Your task to perform on an android device: add a contact Image 0: 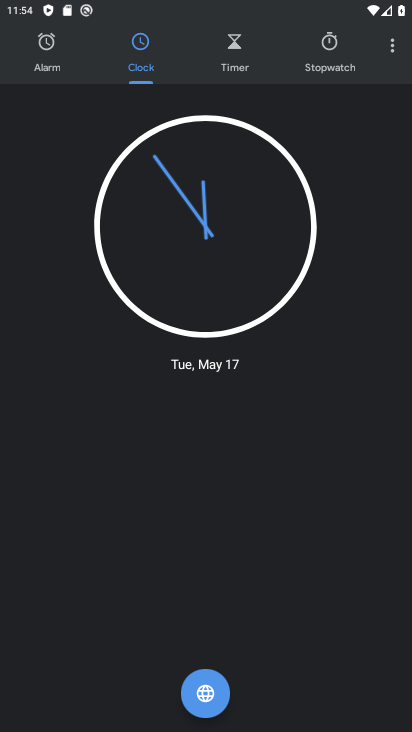
Step 0: press home button
Your task to perform on an android device: add a contact Image 1: 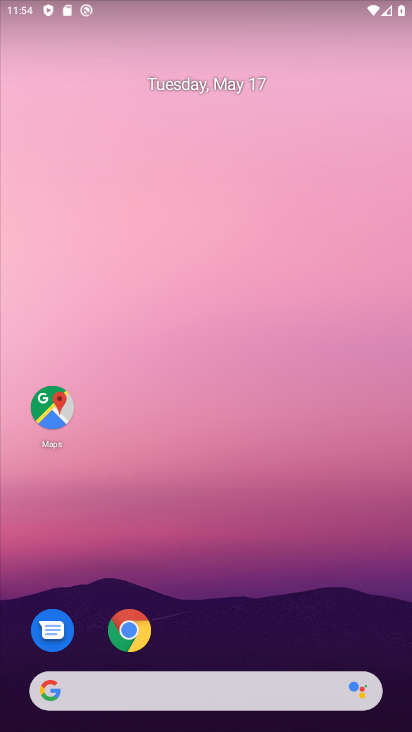
Step 1: drag from (313, 547) to (96, 4)
Your task to perform on an android device: add a contact Image 2: 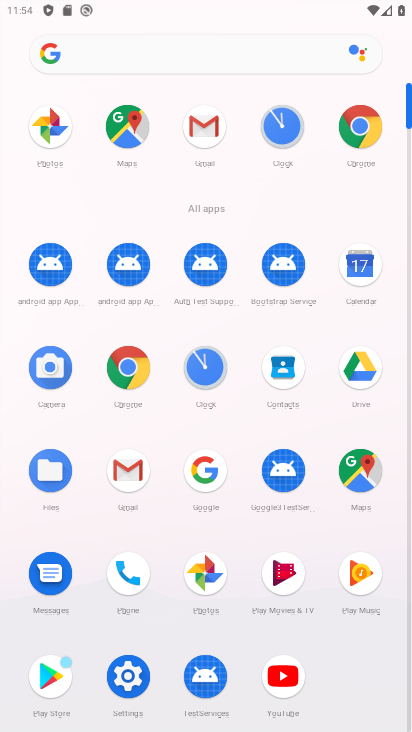
Step 2: click (271, 375)
Your task to perform on an android device: add a contact Image 3: 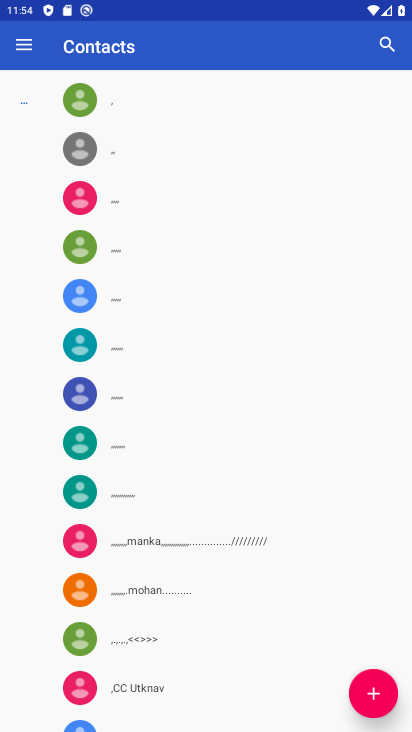
Step 3: click (375, 680)
Your task to perform on an android device: add a contact Image 4: 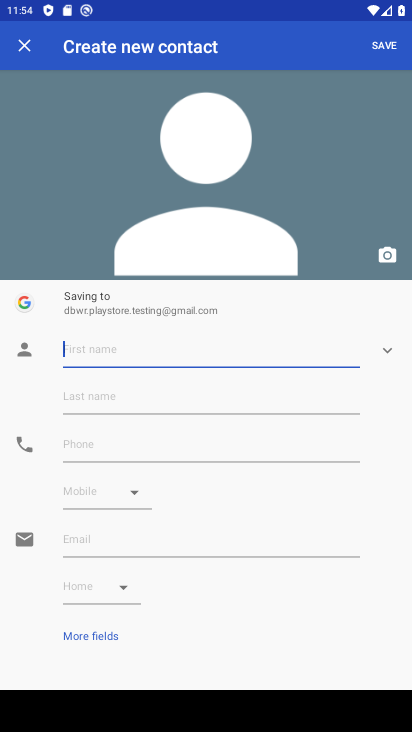
Step 4: type "hujhgkgkh"
Your task to perform on an android device: add a contact Image 5: 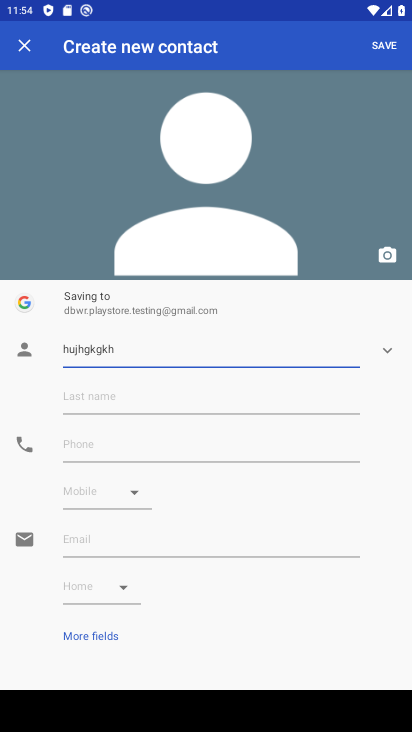
Step 5: click (94, 445)
Your task to perform on an android device: add a contact Image 6: 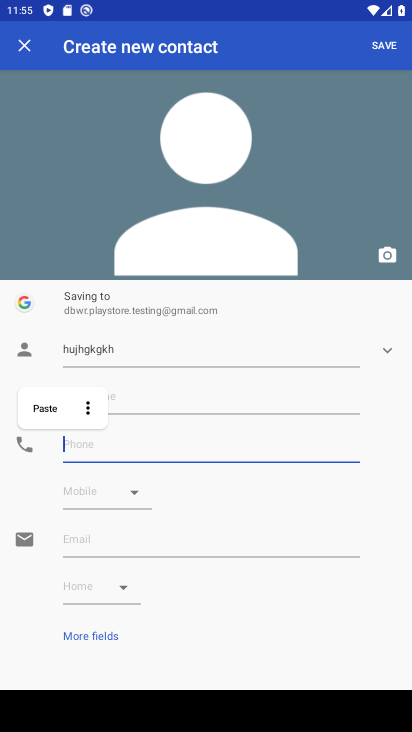
Step 6: type "9786967859987"
Your task to perform on an android device: add a contact Image 7: 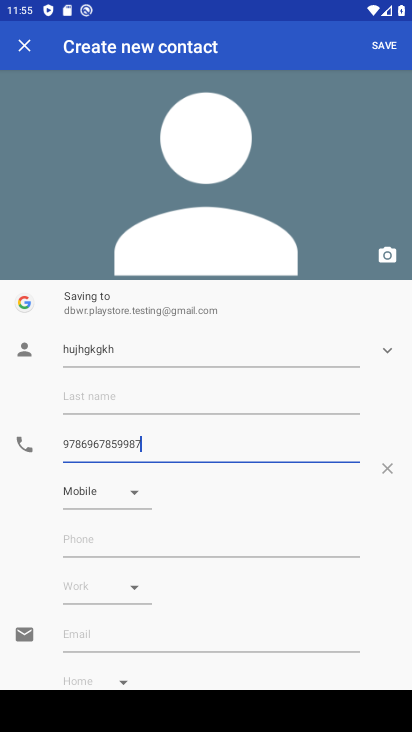
Step 7: click (386, 54)
Your task to perform on an android device: add a contact Image 8: 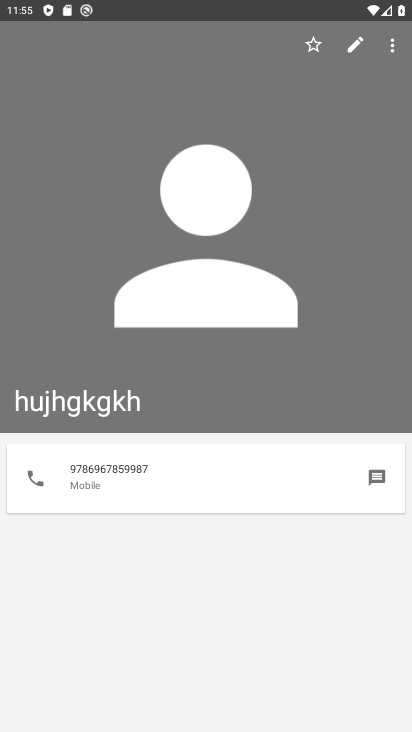
Step 8: task complete